Your task to perform on an android device: make emails show in primary in the gmail app Image 0: 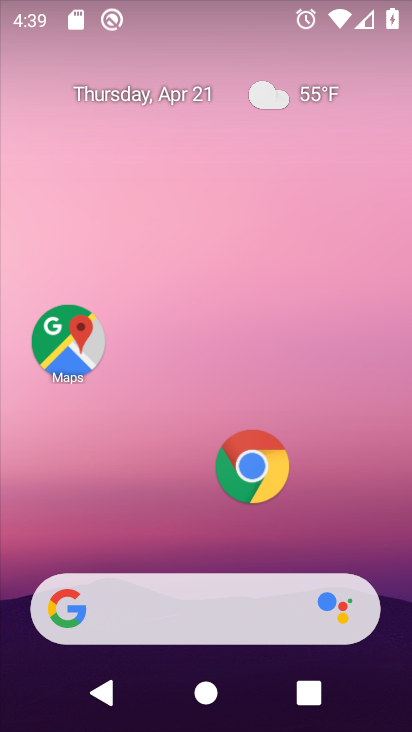
Step 0: drag from (190, 561) to (264, 122)
Your task to perform on an android device: make emails show in primary in the gmail app Image 1: 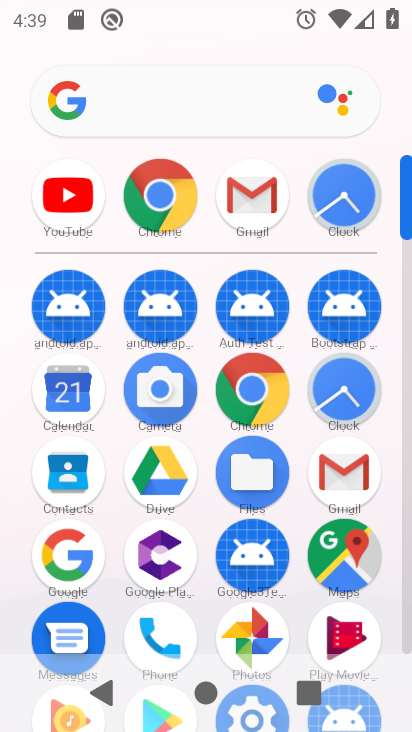
Step 1: click (256, 196)
Your task to perform on an android device: make emails show in primary in the gmail app Image 2: 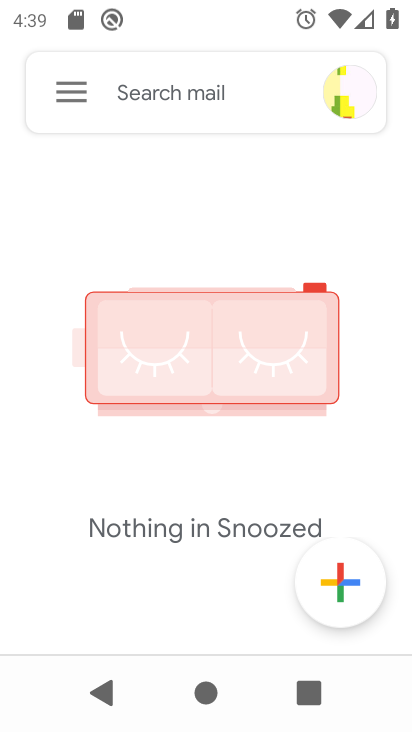
Step 2: click (75, 97)
Your task to perform on an android device: make emails show in primary in the gmail app Image 3: 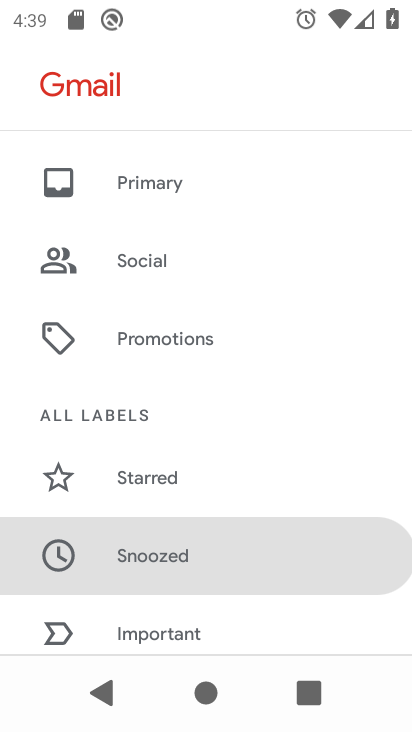
Step 3: drag from (236, 615) to (341, 61)
Your task to perform on an android device: make emails show in primary in the gmail app Image 4: 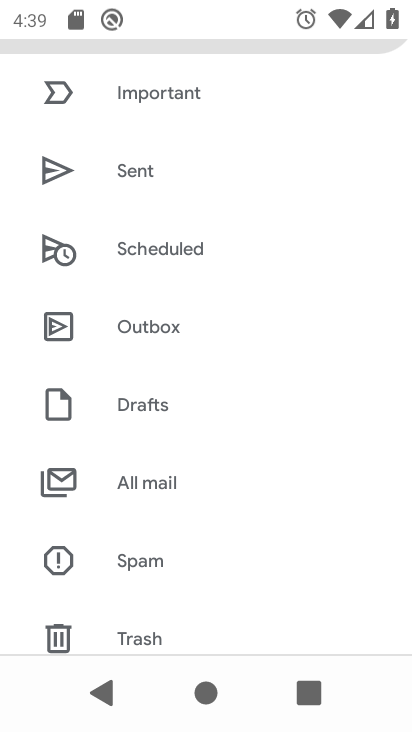
Step 4: drag from (261, 552) to (324, 73)
Your task to perform on an android device: make emails show in primary in the gmail app Image 5: 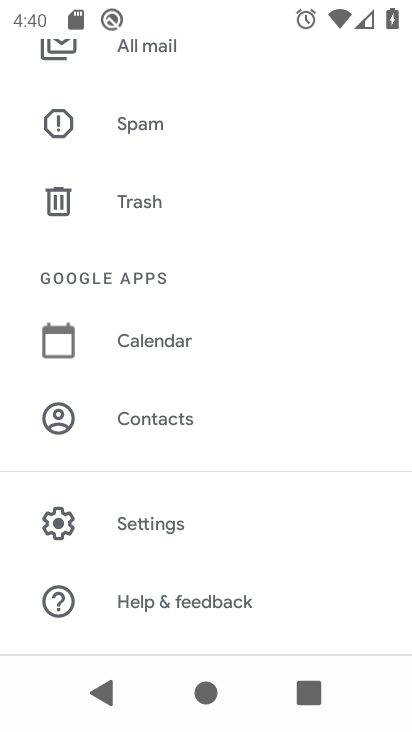
Step 5: click (196, 522)
Your task to perform on an android device: make emails show in primary in the gmail app Image 6: 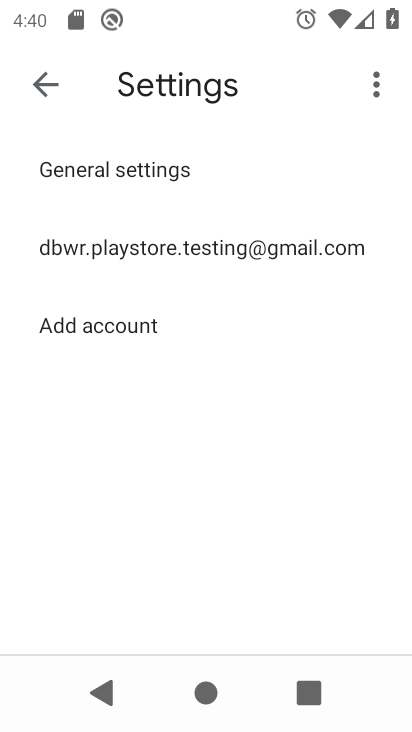
Step 6: click (145, 256)
Your task to perform on an android device: make emails show in primary in the gmail app Image 7: 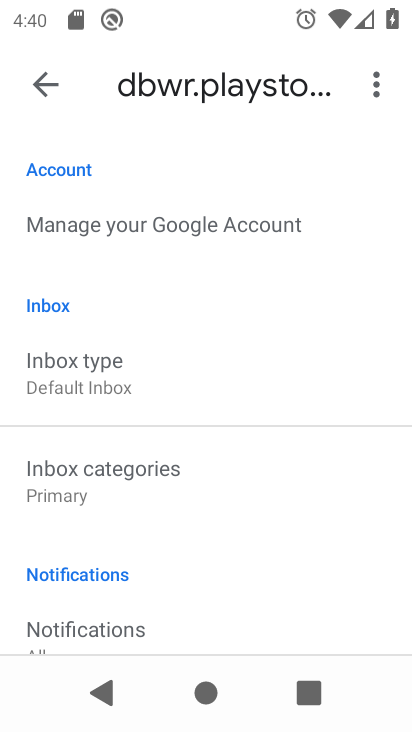
Step 7: task complete